Your task to perform on an android device: toggle translation in the chrome app Image 0: 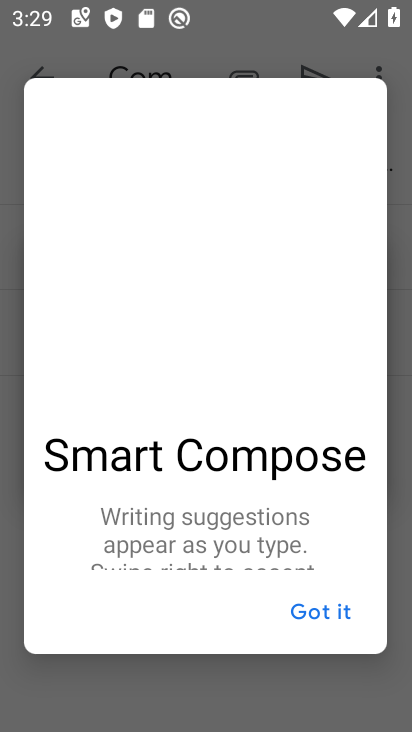
Step 0: press home button
Your task to perform on an android device: toggle translation in the chrome app Image 1: 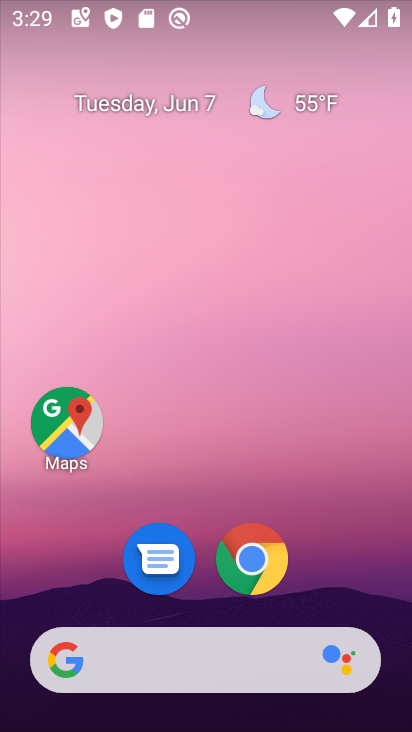
Step 1: click (252, 558)
Your task to perform on an android device: toggle translation in the chrome app Image 2: 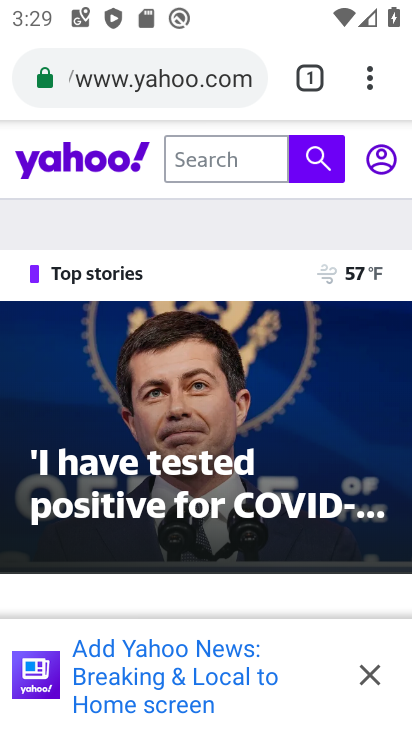
Step 2: click (369, 87)
Your task to perform on an android device: toggle translation in the chrome app Image 3: 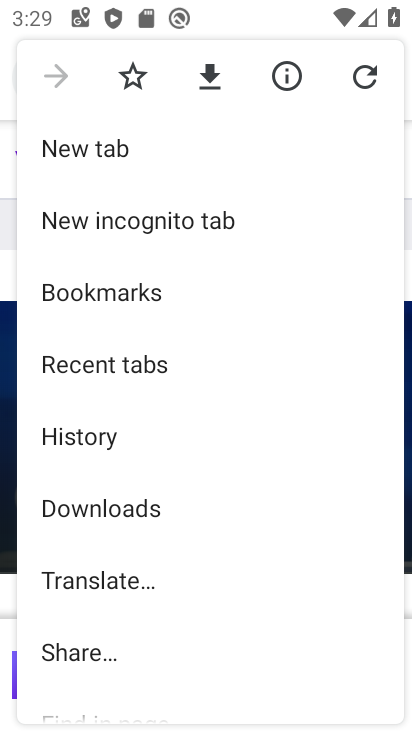
Step 3: drag from (123, 633) to (123, 296)
Your task to perform on an android device: toggle translation in the chrome app Image 4: 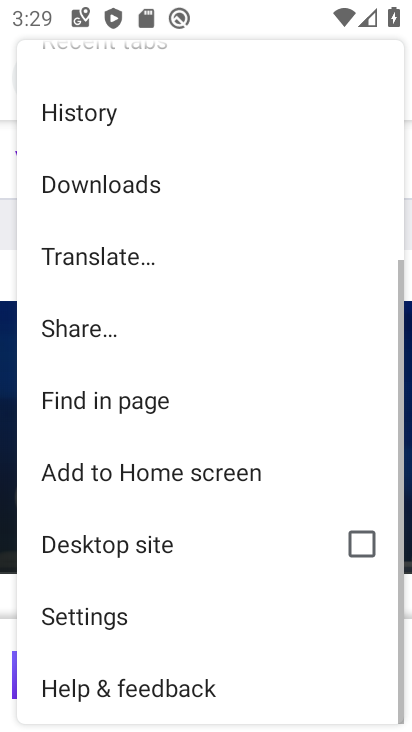
Step 4: click (94, 617)
Your task to perform on an android device: toggle translation in the chrome app Image 5: 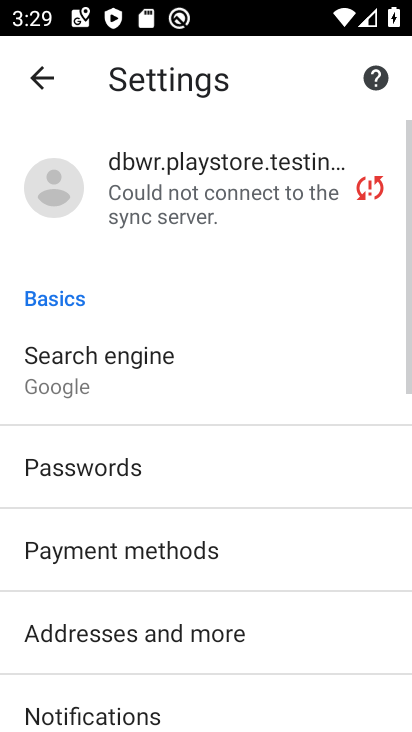
Step 5: drag from (119, 564) to (119, 391)
Your task to perform on an android device: toggle translation in the chrome app Image 6: 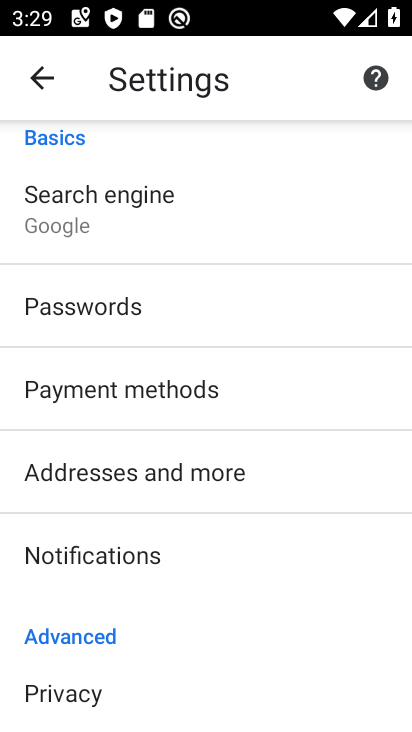
Step 6: drag from (128, 678) to (124, 367)
Your task to perform on an android device: toggle translation in the chrome app Image 7: 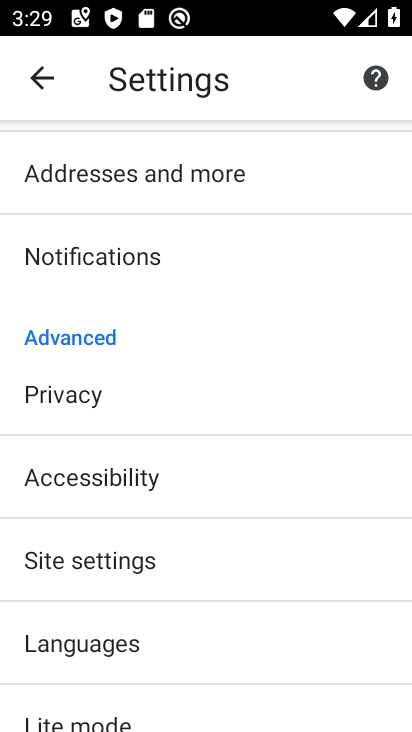
Step 7: click (96, 645)
Your task to perform on an android device: toggle translation in the chrome app Image 8: 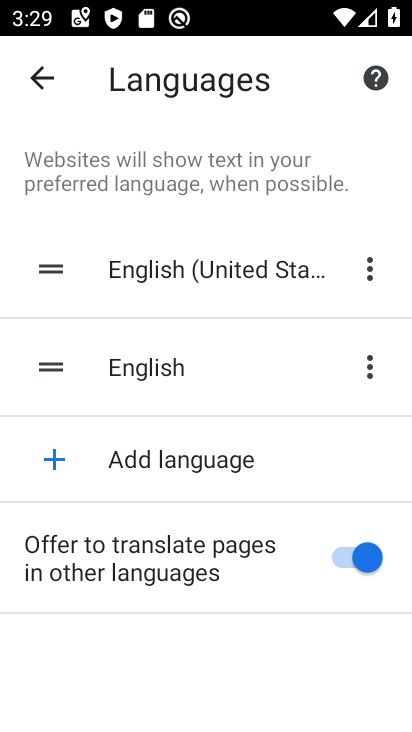
Step 8: click (346, 549)
Your task to perform on an android device: toggle translation in the chrome app Image 9: 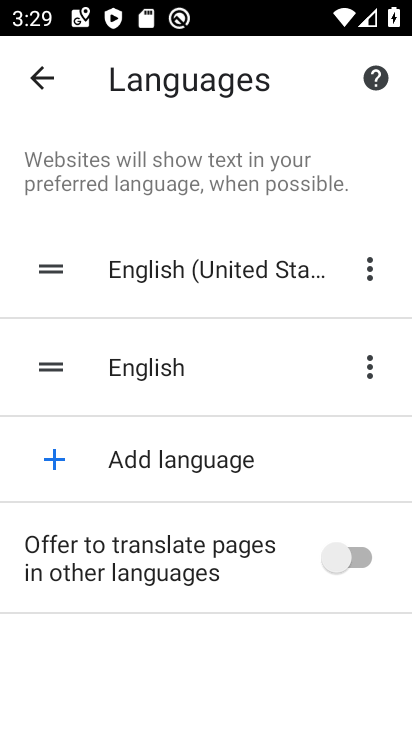
Step 9: task complete